Your task to perform on an android device: turn on showing notifications on the lock screen Image 0: 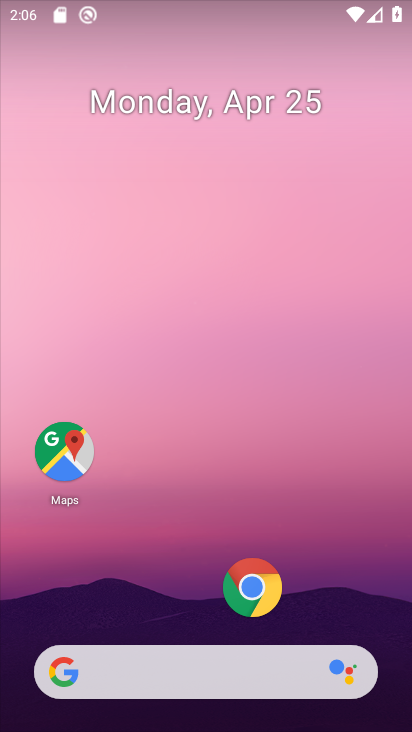
Step 0: drag from (198, 603) to (232, 30)
Your task to perform on an android device: turn on showing notifications on the lock screen Image 1: 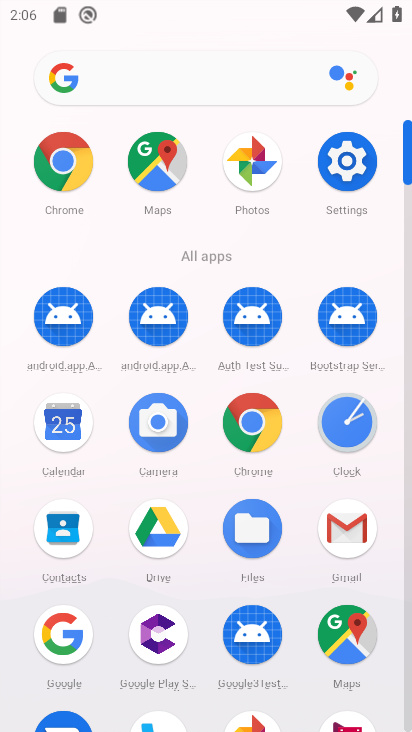
Step 1: click (344, 153)
Your task to perform on an android device: turn on showing notifications on the lock screen Image 2: 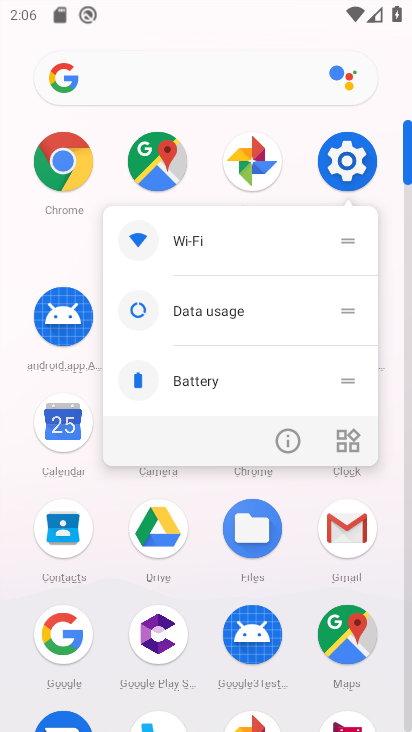
Step 2: click (343, 155)
Your task to perform on an android device: turn on showing notifications on the lock screen Image 3: 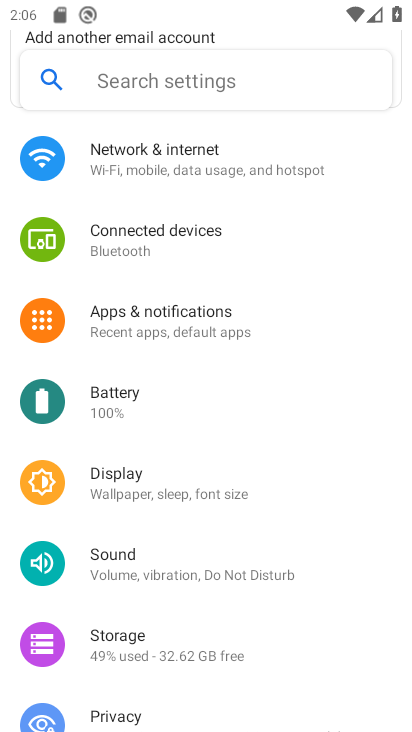
Step 3: click (187, 315)
Your task to perform on an android device: turn on showing notifications on the lock screen Image 4: 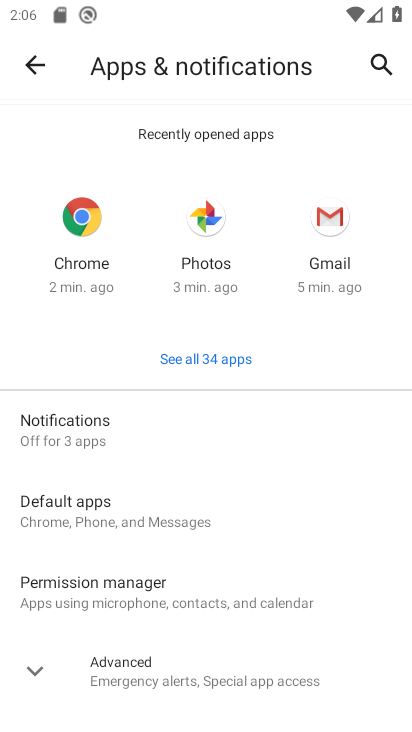
Step 4: click (122, 430)
Your task to perform on an android device: turn on showing notifications on the lock screen Image 5: 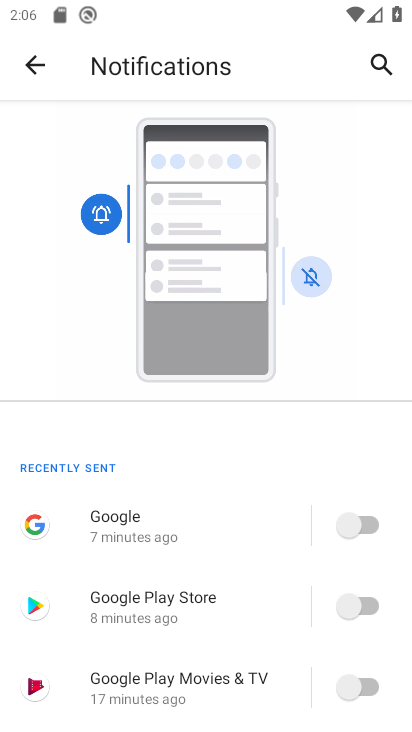
Step 5: drag from (219, 645) to (277, 211)
Your task to perform on an android device: turn on showing notifications on the lock screen Image 6: 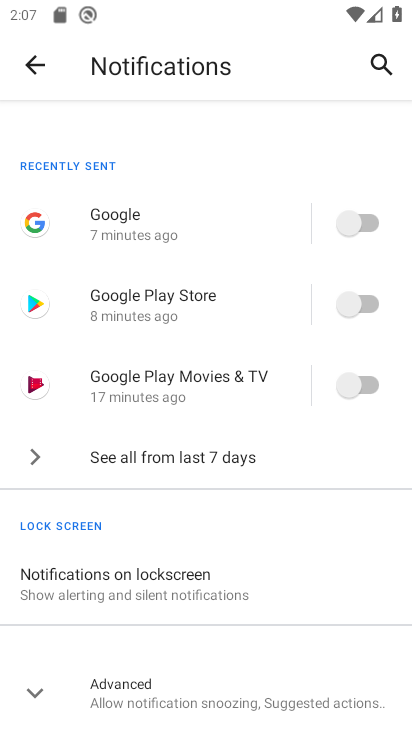
Step 6: click (225, 573)
Your task to perform on an android device: turn on showing notifications on the lock screen Image 7: 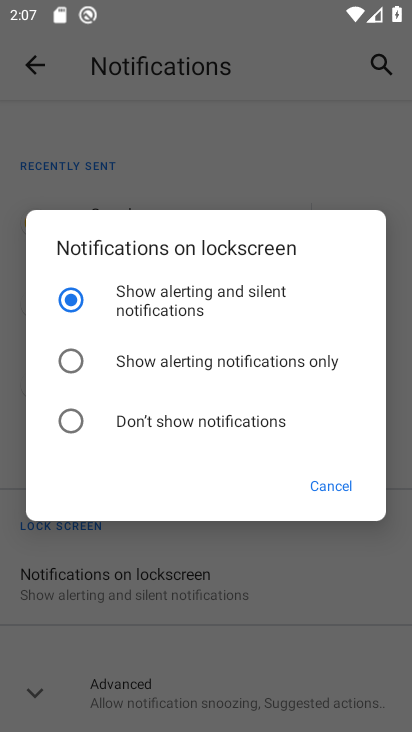
Step 7: click (70, 356)
Your task to perform on an android device: turn on showing notifications on the lock screen Image 8: 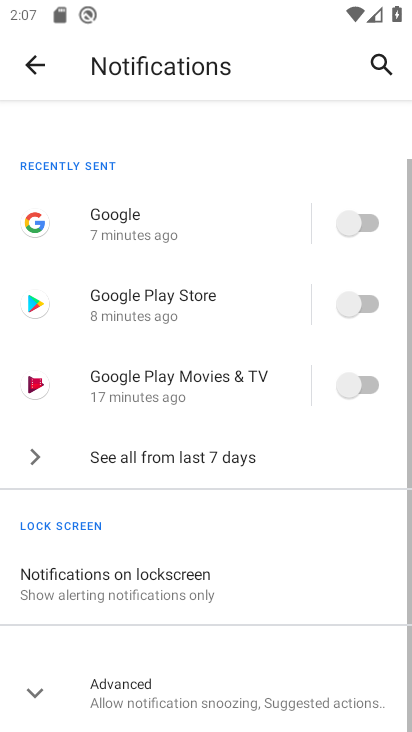
Step 8: task complete